Your task to perform on an android device: Open Google Chrome and open the bookmarks view Image 0: 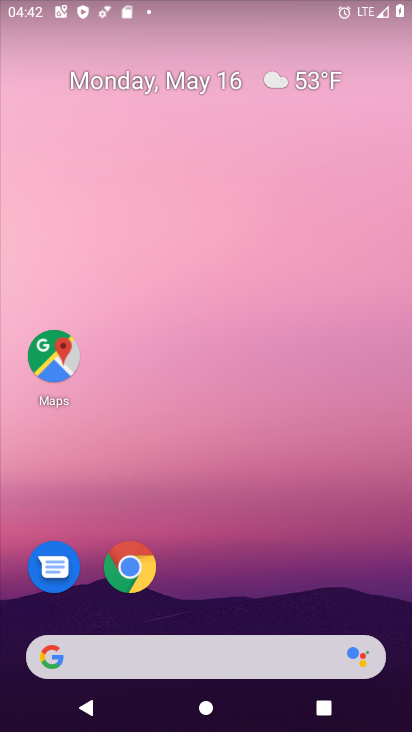
Step 0: drag from (344, 671) to (310, 53)
Your task to perform on an android device: Open Google Chrome and open the bookmarks view Image 1: 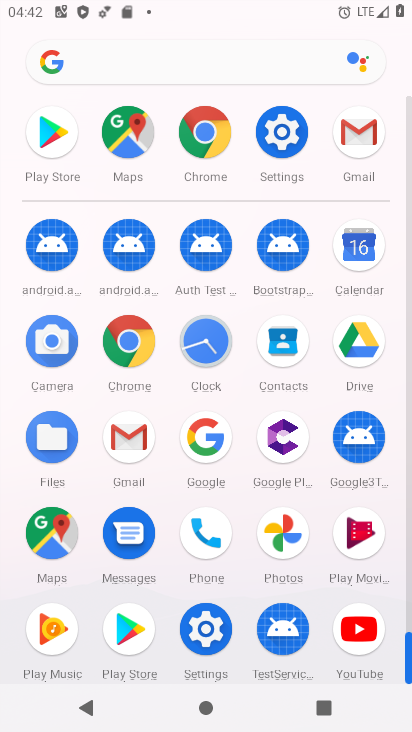
Step 1: click (142, 336)
Your task to perform on an android device: Open Google Chrome and open the bookmarks view Image 2: 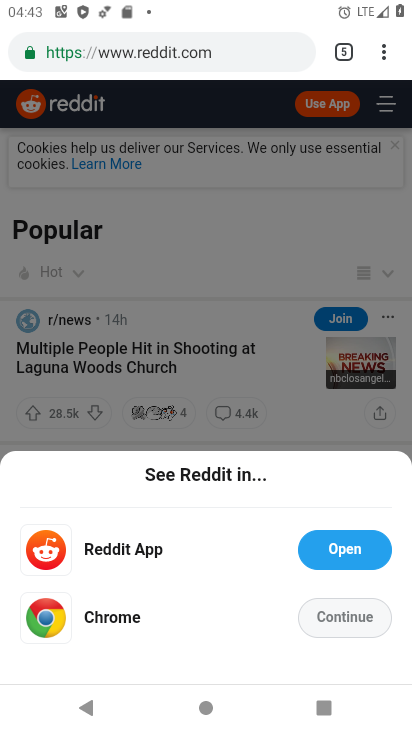
Step 2: click (378, 57)
Your task to perform on an android device: Open Google Chrome and open the bookmarks view Image 3: 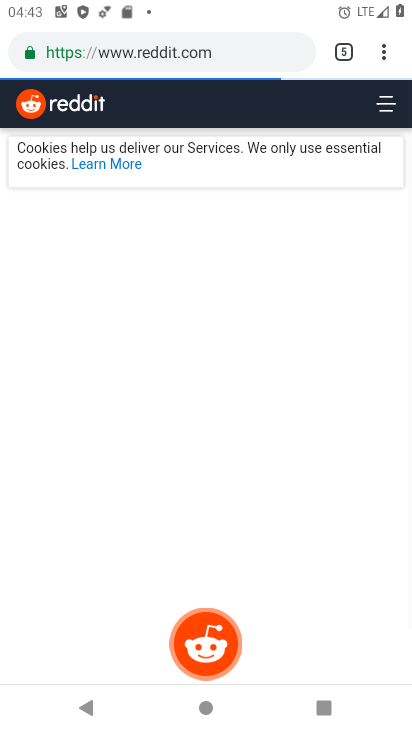
Step 3: task complete